Your task to perform on an android device: turn on data saver in the chrome app Image 0: 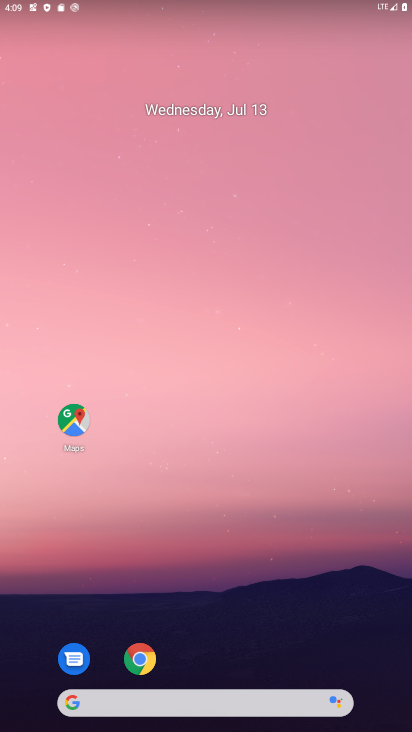
Step 0: click (141, 654)
Your task to perform on an android device: turn on data saver in the chrome app Image 1: 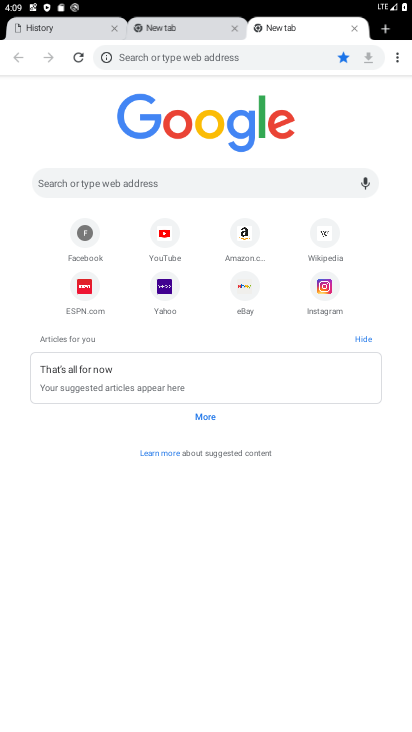
Step 1: click (394, 58)
Your task to perform on an android device: turn on data saver in the chrome app Image 2: 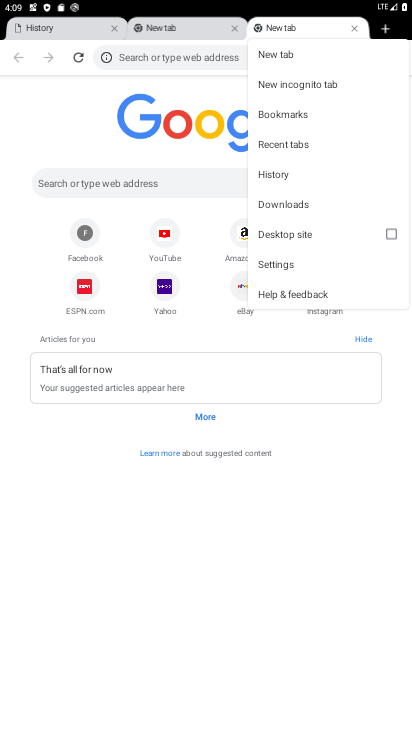
Step 2: click (294, 266)
Your task to perform on an android device: turn on data saver in the chrome app Image 3: 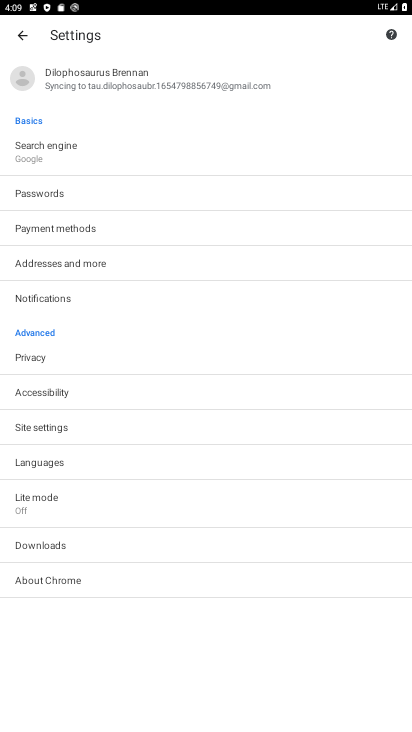
Step 3: click (74, 502)
Your task to perform on an android device: turn on data saver in the chrome app Image 4: 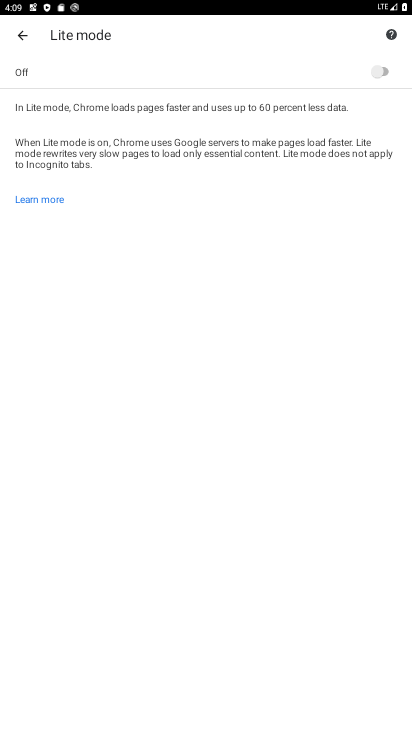
Step 4: click (381, 65)
Your task to perform on an android device: turn on data saver in the chrome app Image 5: 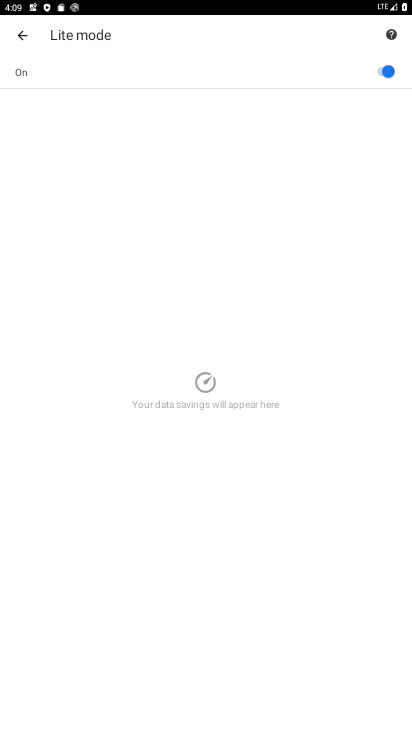
Step 5: task complete